Your task to perform on an android device: Open CNN.com Image 0: 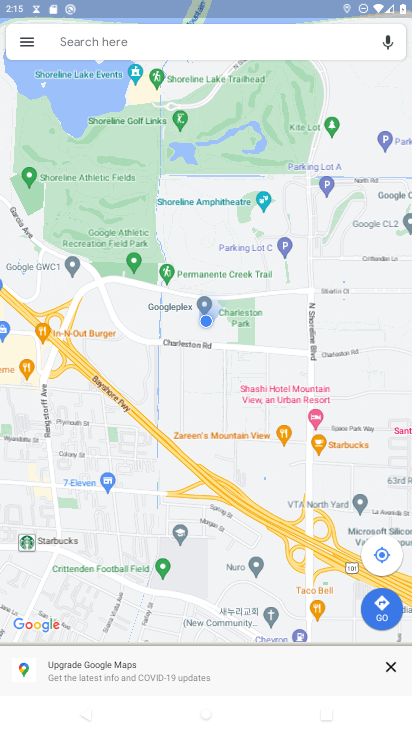
Step 0: press home button
Your task to perform on an android device: Open CNN.com Image 1: 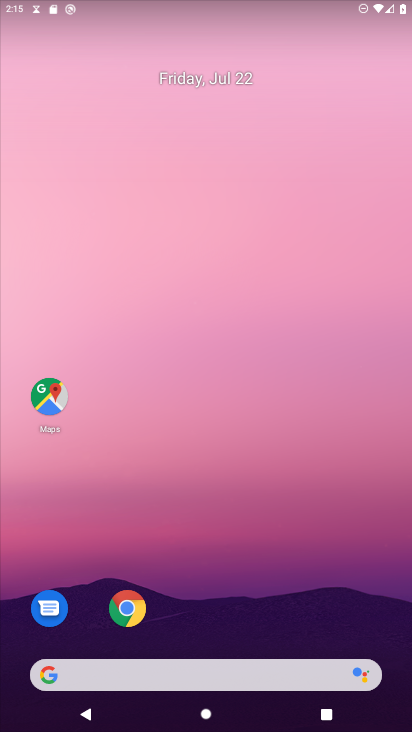
Step 1: click (130, 595)
Your task to perform on an android device: Open CNN.com Image 2: 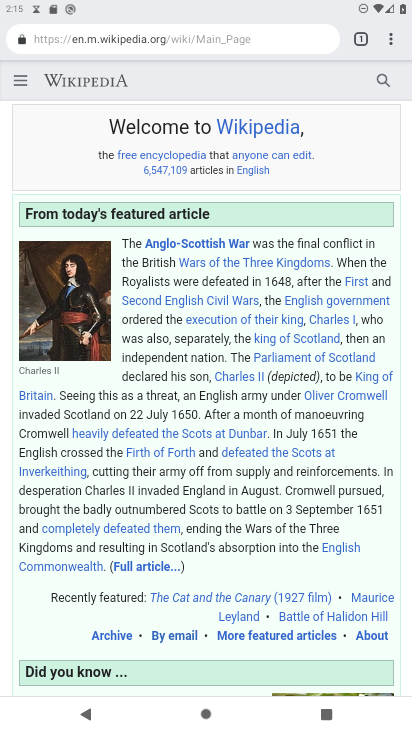
Step 2: click (268, 34)
Your task to perform on an android device: Open CNN.com Image 3: 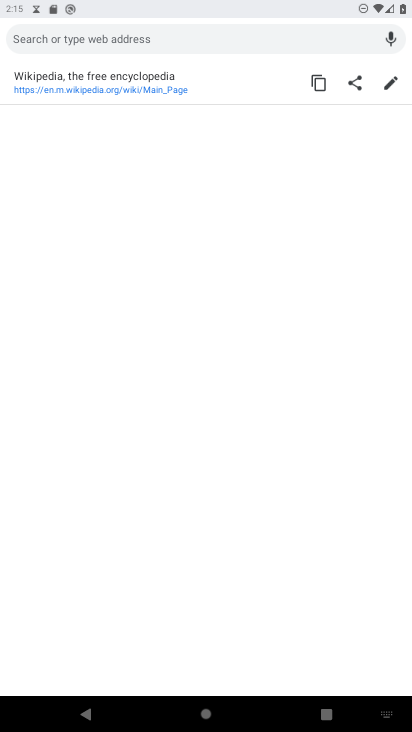
Step 3: type "CNN.com"
Your task to perform on an android device: Open CNN.com Image 4: 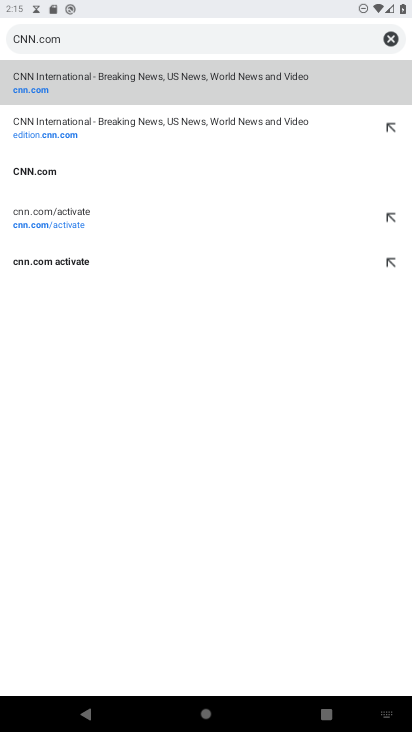
Step 4: click (39, 86)
Your task to perform on an android device: Open CNN.com Image 5: 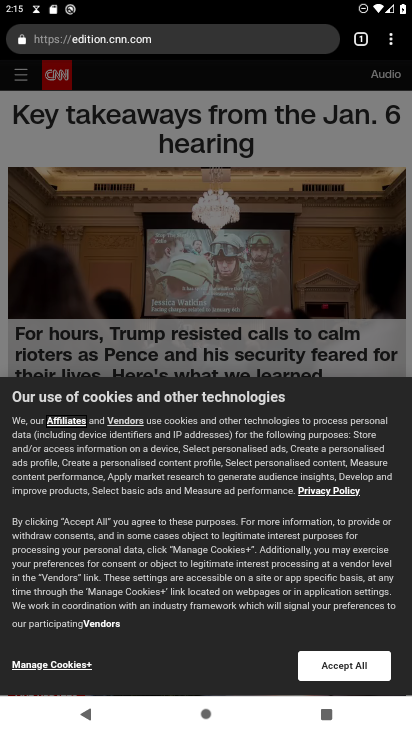
Step 5: task complete